Your task to perform on an android device: turn notification dots off Image 0: 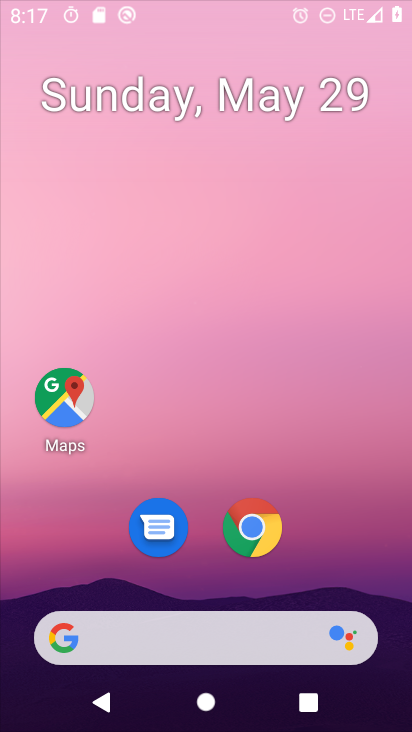
Step 0: drag from (396, 630) to (316, 33)
Your task to perform on an android device: turn notification dots off Image 1: 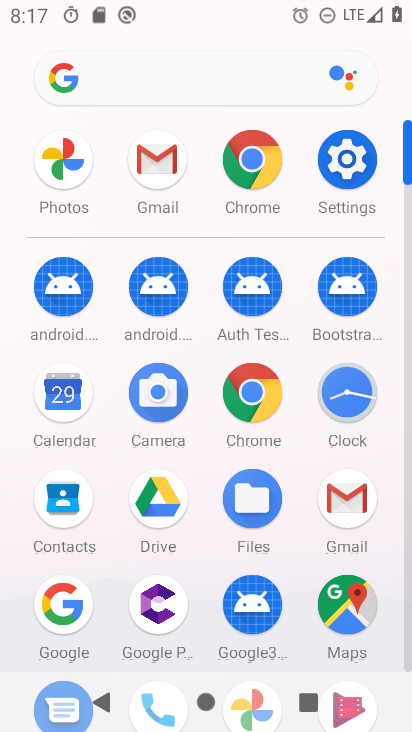
Step 1: click (338, 144)
Your task to perform on an android device: turn notification dots off Image 2: 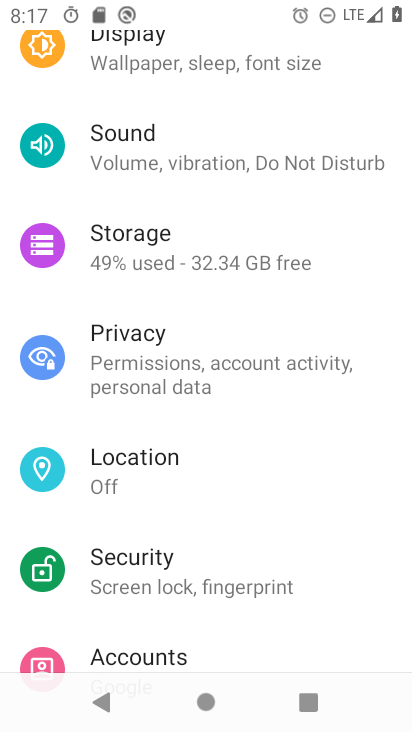
Step 2: drag from (215, 144) to (284, 609)
Your task to perform on an android device: turn notification dots off Image 3: 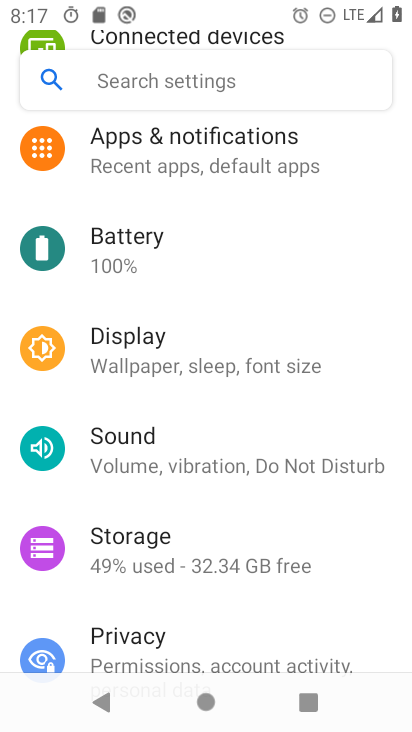
Step 3: click (233, 157)
Your task to perform on an android device: turn notification dots off Image 4: 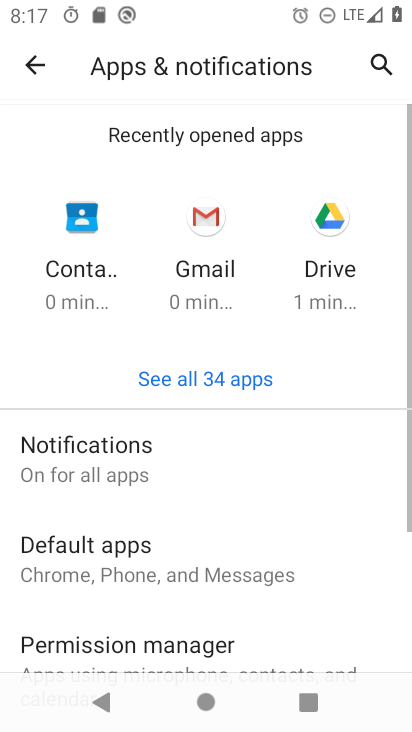
Step 4: click (214, 479)
Your task to perform on an android device: turn notification dots off Image 5: 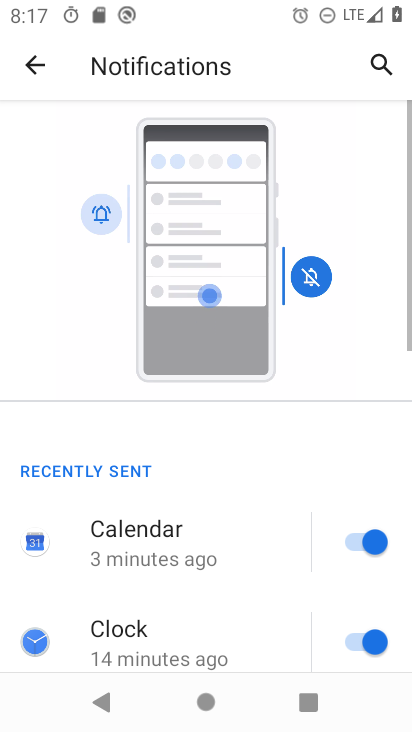
Step 5: drag from (160, 611) to (197, 0)
Your task to perform on an android device: turn notification dots off Image 6: 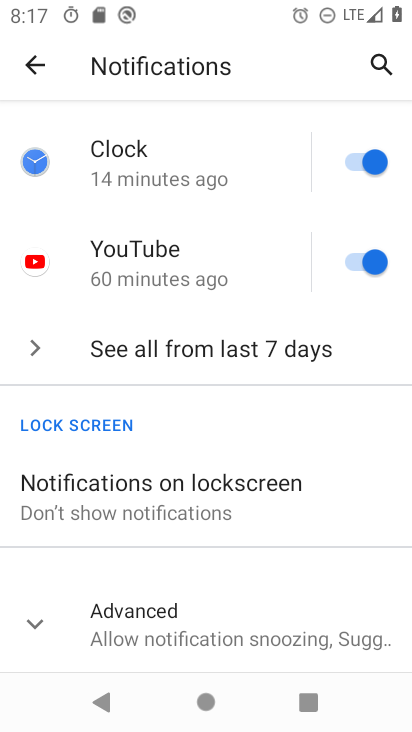
Step 6: click (195, 627)
Your task to perform on an android device: turn notification dots off Image 7: 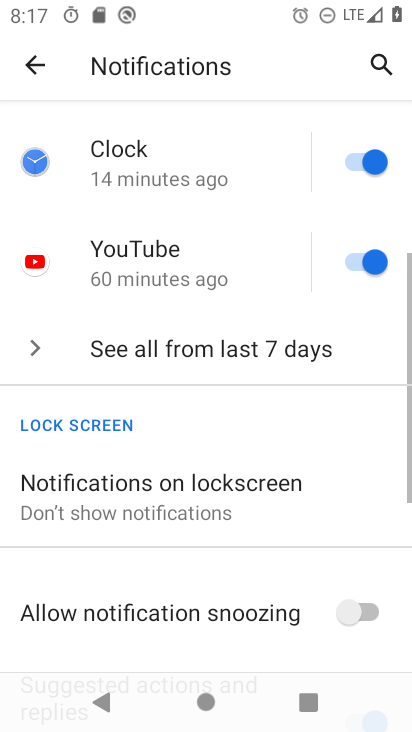
Step 7: task complete